Your task to perform on an android device: set default search engine in the chrome app Image 0: 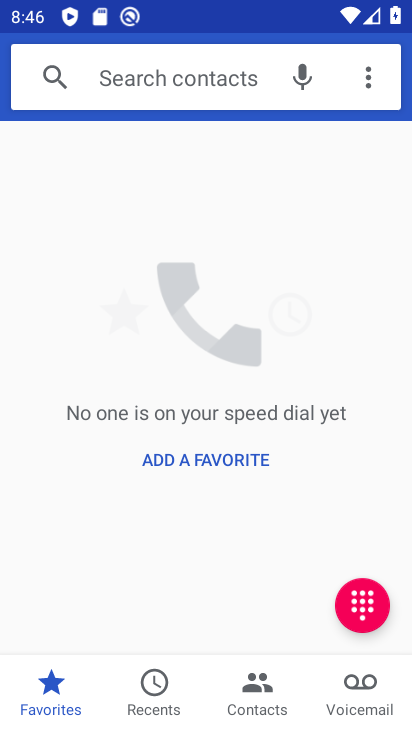
Step 0: press home button
Your task to perform on an android device: set default search engine in the chrome app Image 1: 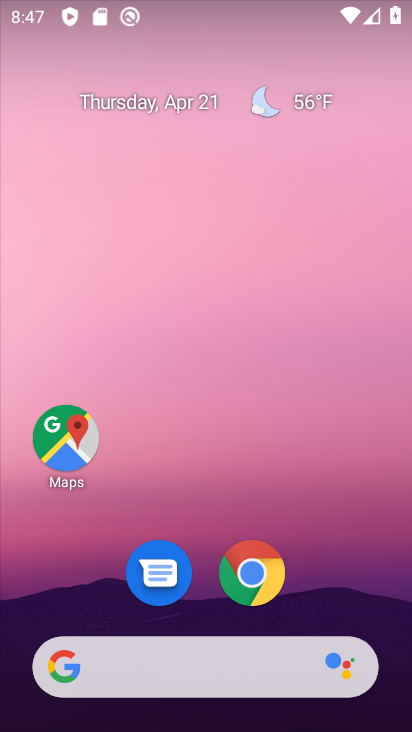
Step 1: click (254, 579)
Your task to perform on an android device: set default search engine in the chrome app Image 2: 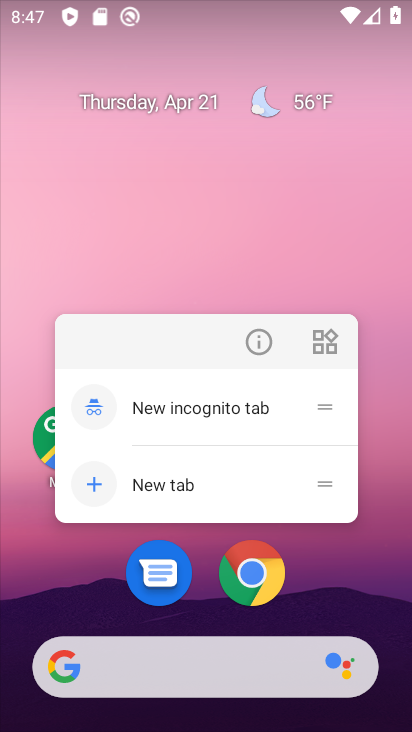
Step 2: click (272, 564)
Your task to perform on an android device: set default search engine in the chrome app Image 3: 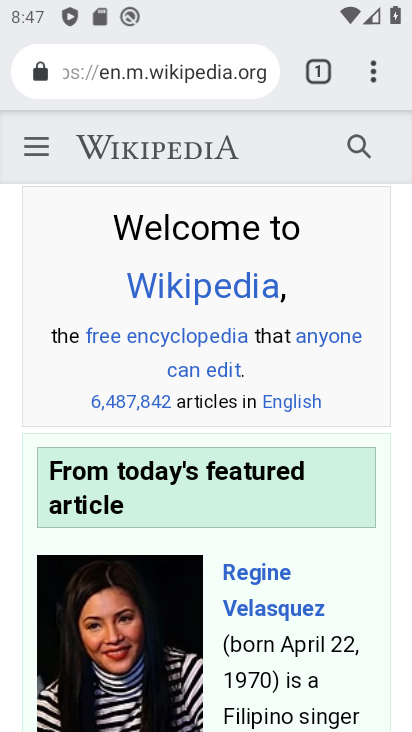
Step 3: click (378, 77)
Your task to perform on an android device: set default search engine in the chrome app Image 4: 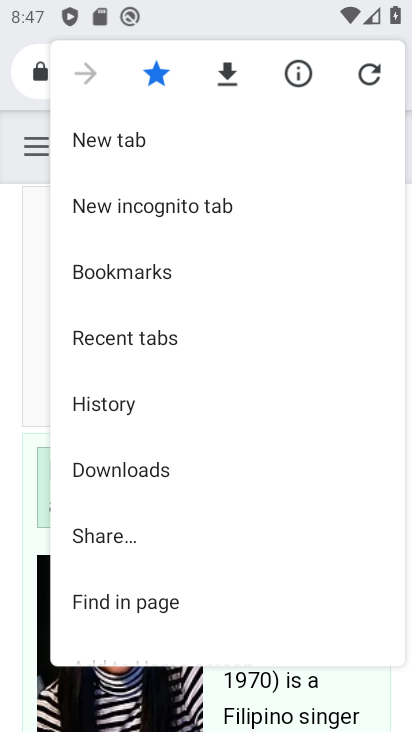
Step 4: drag from (183, 574) to (191, 262)
Your task to perform on an android device: set default search engine in the chrome app Image 5: 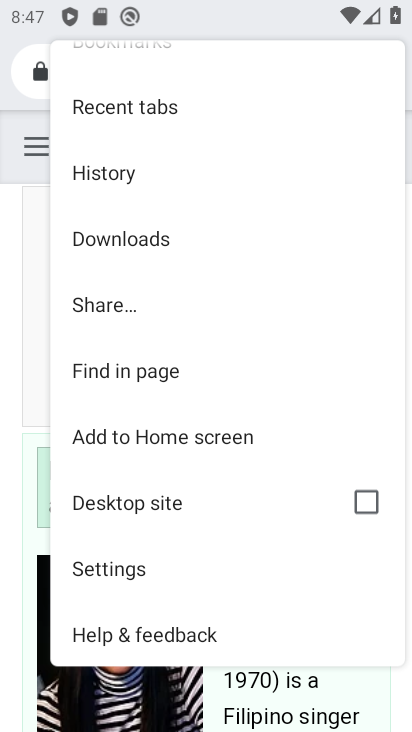
Step 5: click (125, 572)
Your task to perform on an android device: set default search engine in the chrome app Image 6: 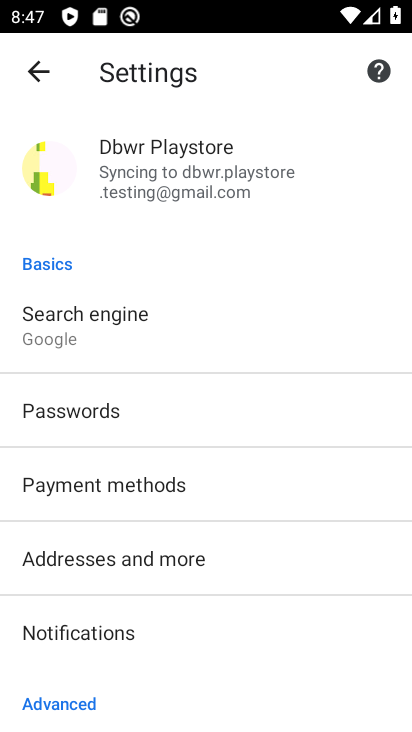
Step 6: click (181, 327)
Your task to perform on an android device: set default search engine in the chrome app Image 7: 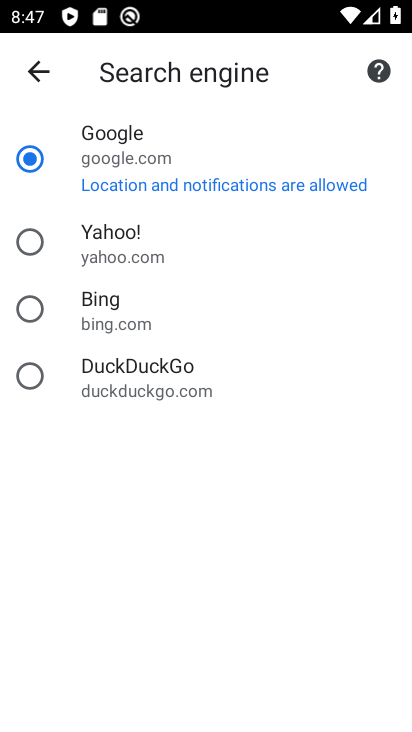
Step 7: click (112, 387)
Your task to perform on an android device: set default search engine in the chrome app Image 8: 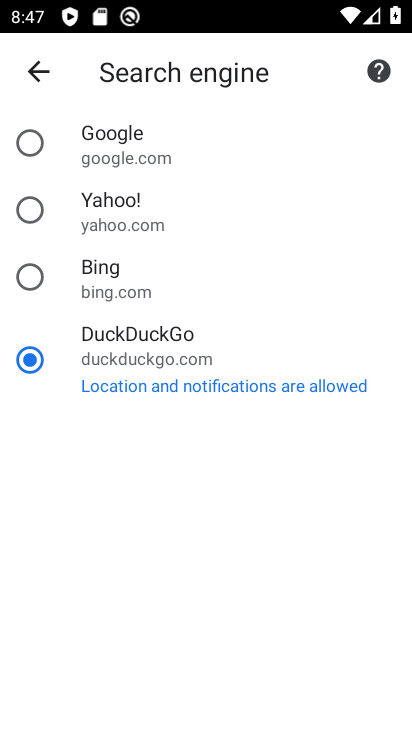
Step 8: task complete